Your task to perform on an android device: Open Yahoo.com Image 0: 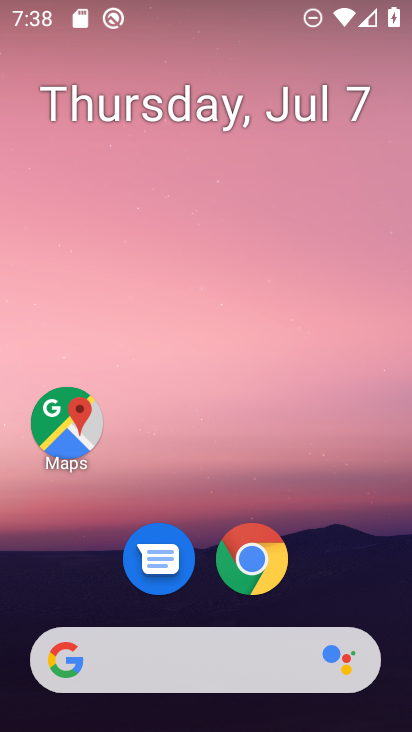
Step 0: click (243, 567)
Your task to perform on an android device: Open Yahoo.com Image 1: 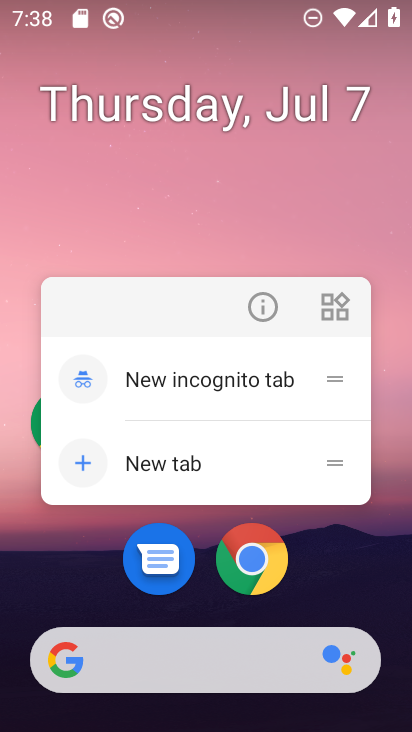
Step 1: click (251, 560)
Your task to perform on an android device: Open Yahoo.com Image 2: 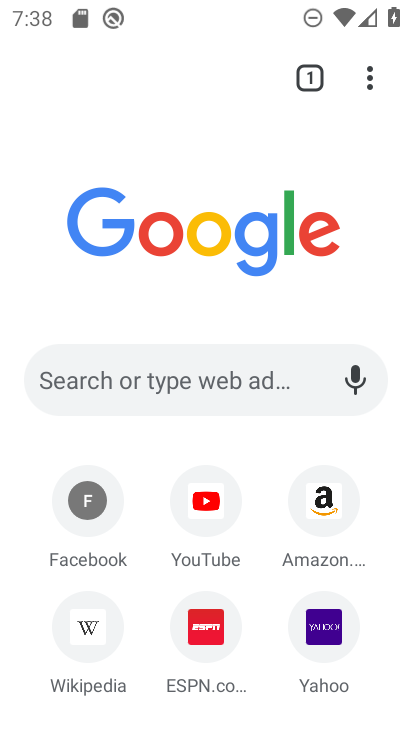
Step 2: click (318, 629)
Your task to perform on an android device: Open Yahoo.com Image 3: 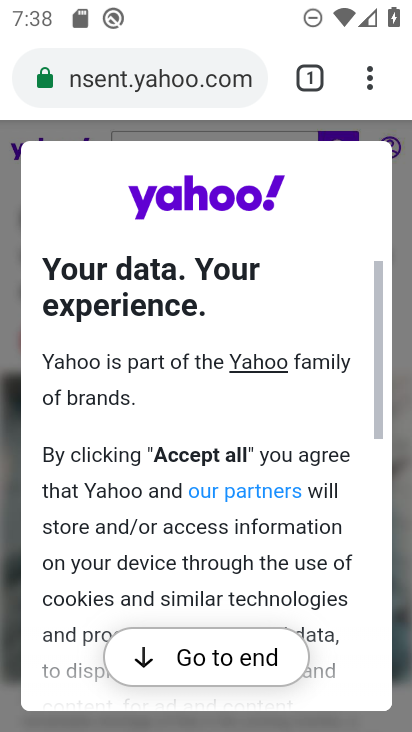
Step 3: click (205, 656)
Your task to perform on an android device: Open Yahoo.com Image 4: 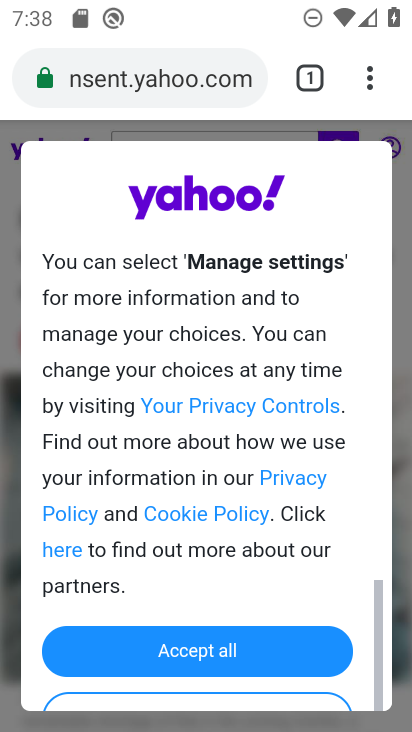
Step 4: click (211, 656)
Your task to perform on an android device: Open Yahoo.com Image 5: 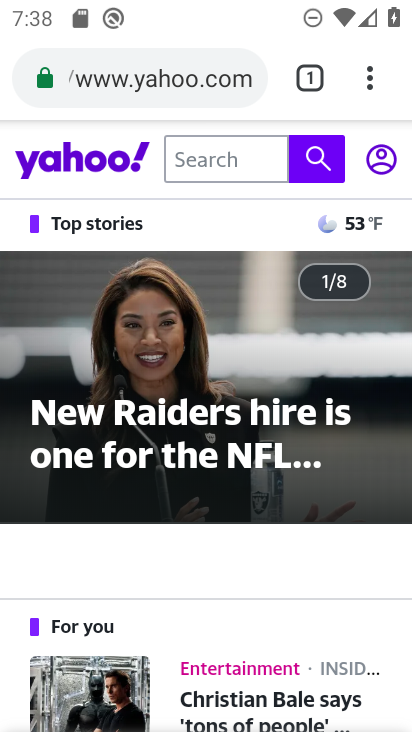
Step 5: task complete